Your task to perform on an android device: Go to display settings Image 0: 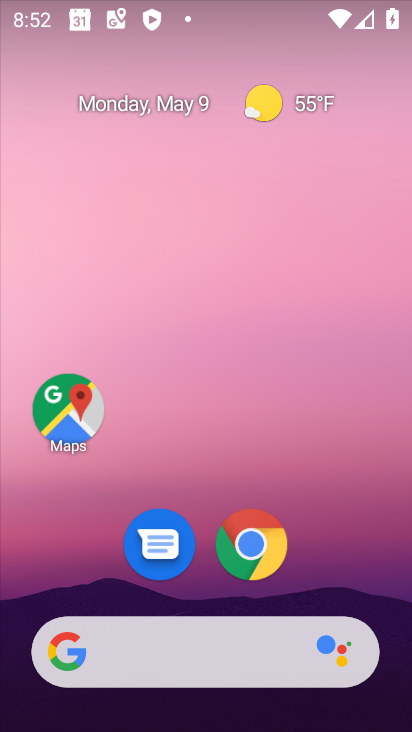
Step 0: drag from (223, 467) to (260, 158)
Your task to perform on an android device: Go to display settings Image 1: 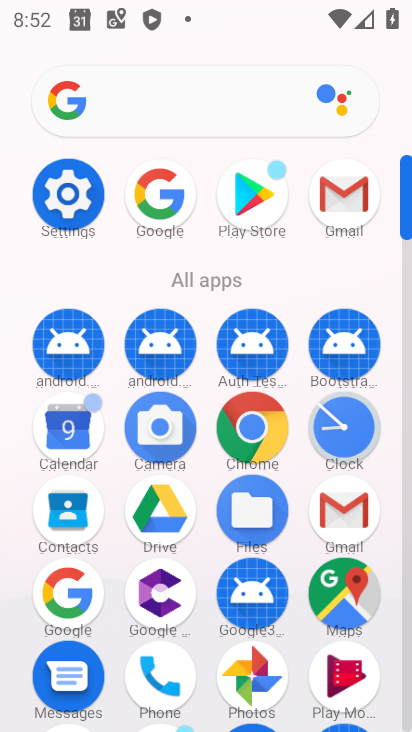
Step 1: click (45, 198)
Your task to perform on an android device: Go to display settings Image 2: 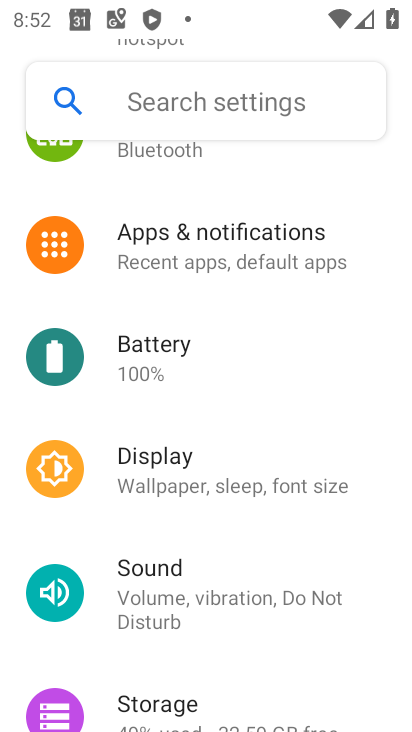
Step 2: click (212, 461)
Your task to perform on an android device: Go to display settings Image 3: 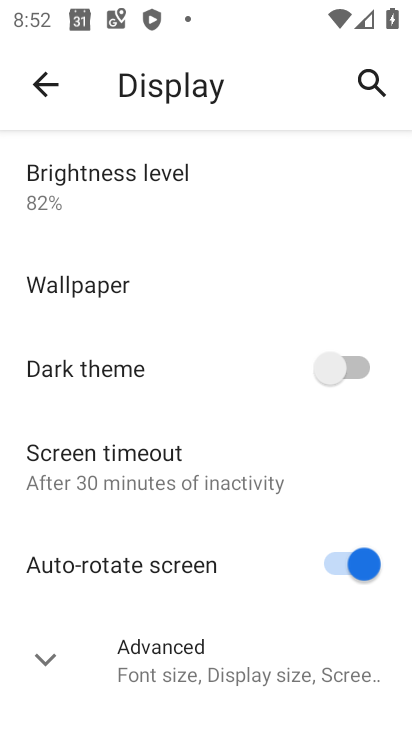
Step 3: task complete